Your task to perform on an android device: open the mobile data screen to see how much data has been used Image 0: 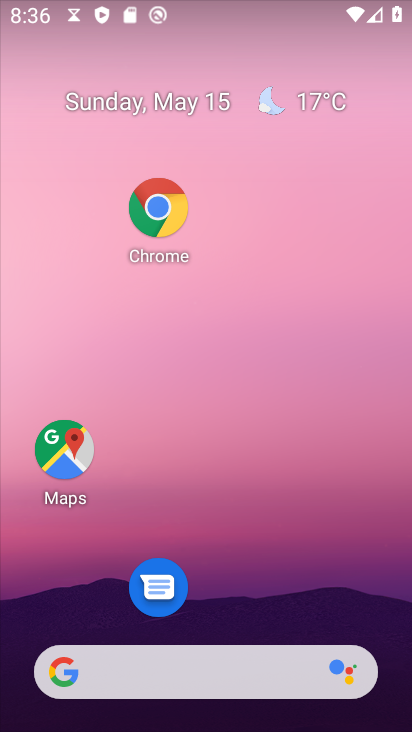
Step 0: drag from (285, 667) to (172, 54)
Your task to perform on an android device: open the mobile data screen to see how much data has been used Image 1: 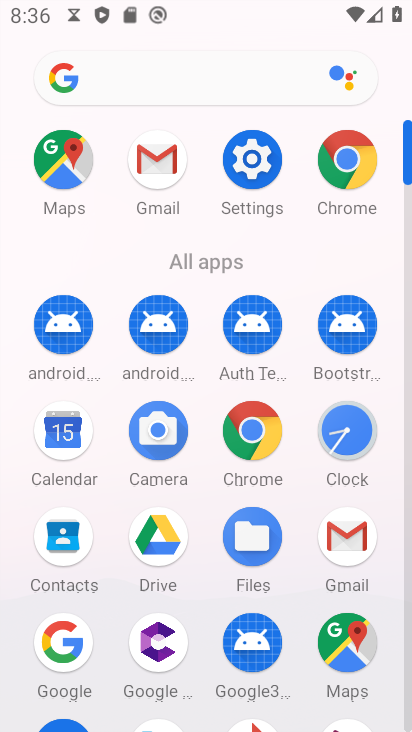
Step 1: click (244, 157)
Your task to perform on an android device: open the mobile data screen to see how much data has been used Image 2: 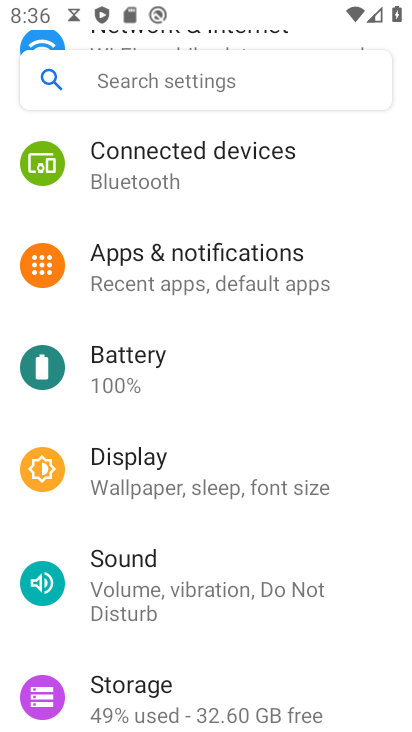
Step 2: drag from (190, 292) to (267, 547)
Your task to perform on an android device: open the mobile data screen to see how much data has been used Image 3: 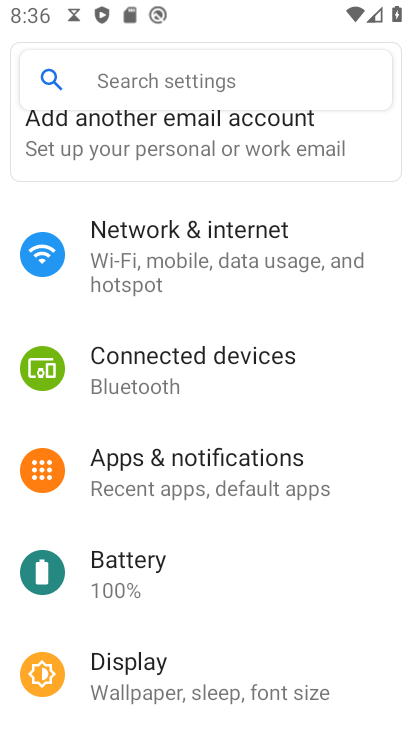
Step 3: drag from (213, 241) to (269, 545)
Your task to perform on an android device: open the mobile data screen to see how much data has been used Image 4: 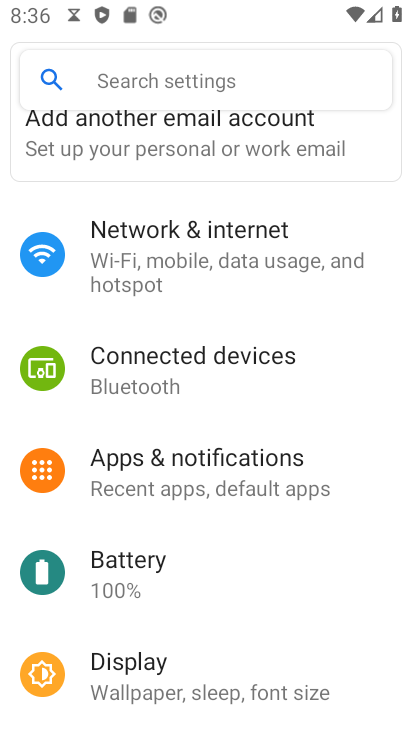
Step 4: drag from (190, 397) to (243, 599)
Your task to perform on an android device: open the mobile data screen to see how much data has been used Image 5: 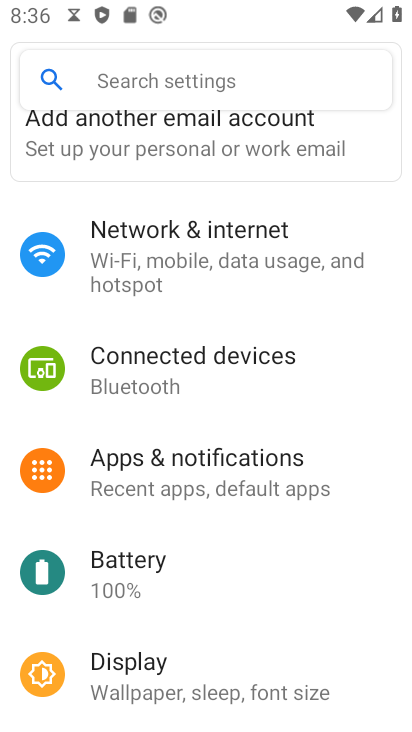
Step 5: click (159, 272)
Your task to perform on an android device: open the mobile data screen to see how much data has been used Image 6: 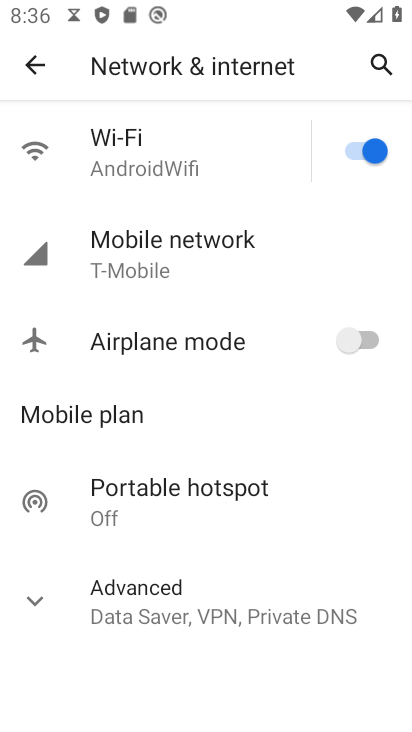
Step 6: click (138, 270)
Your task to perform on an android device: open the mobile data screen to see how much data has been used Image 7: 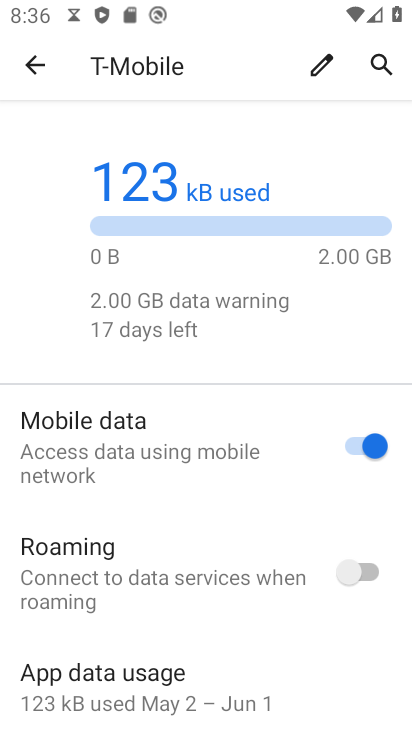
Step 7: task complete